Your task to perform on an android device: Go to Yahoo.com Image 0: 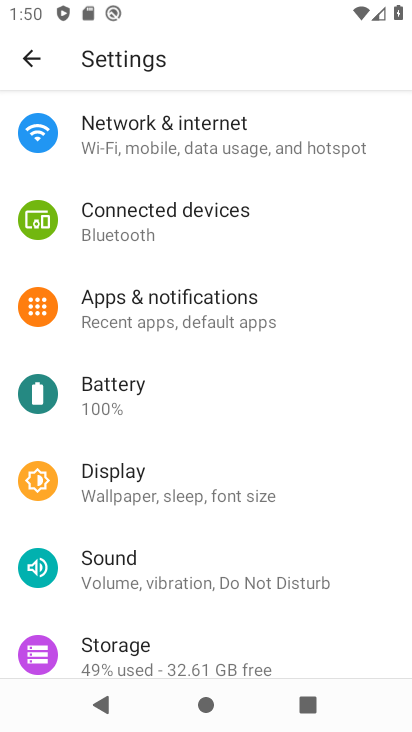
Step 0: press home button
Your task to perform on an android device: Go to Yahoo.com Image 1: 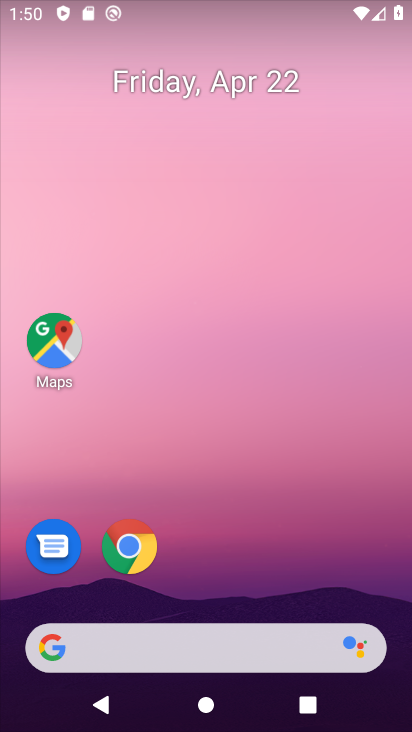
Step 1: click (137, 565)
Your task to perform on an android device: Go to Yahoo.com Image 2: 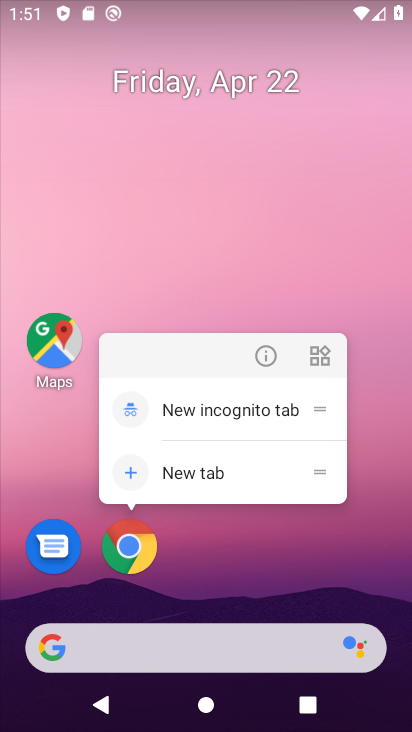
Step 2: click (144, 564)
Your task to perform on an android device: Go to Yahoo.com Image 3: 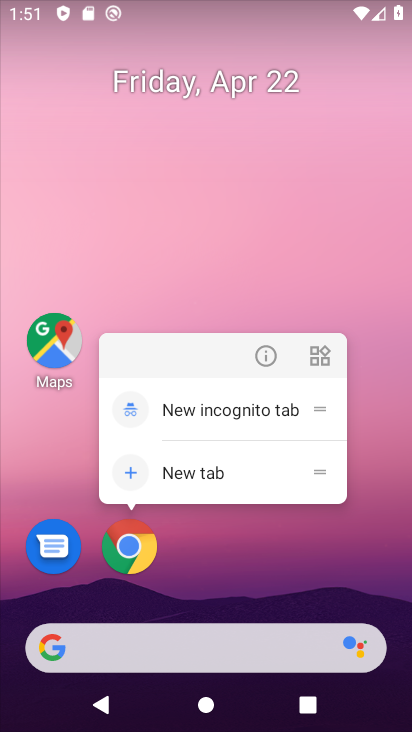
Step 3: click (144, 564)
Your task to perform on an android device: Go to Yahoo.com Image 4: 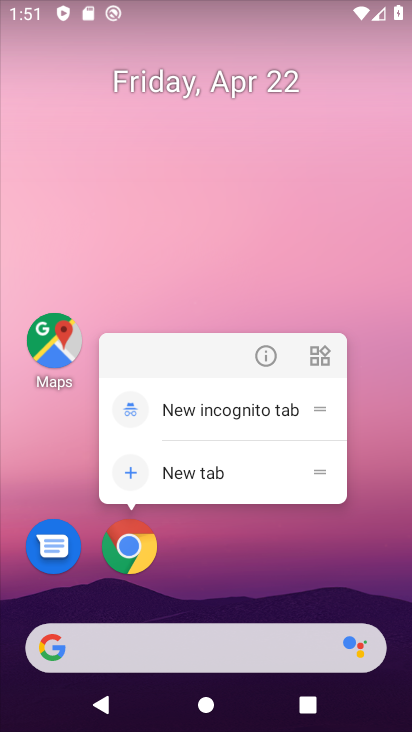
Step 4: click (131, 546)
Your task to perform on an android device: Go to Yahoo.com Image 5: 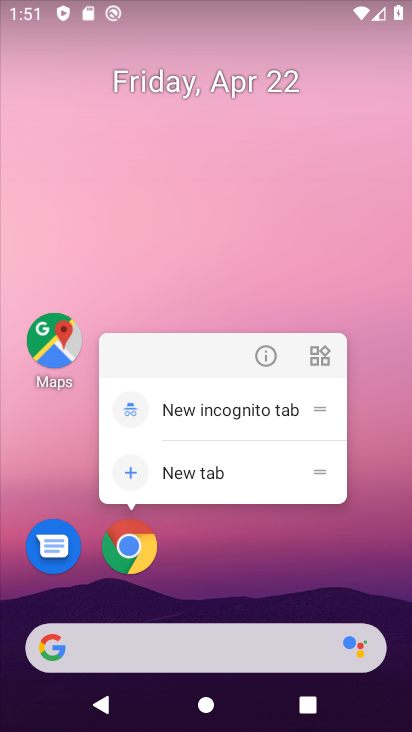
Step 5: click (125, 535)
Your task to perform on an android device: Go to Yahoo.com Image 6: 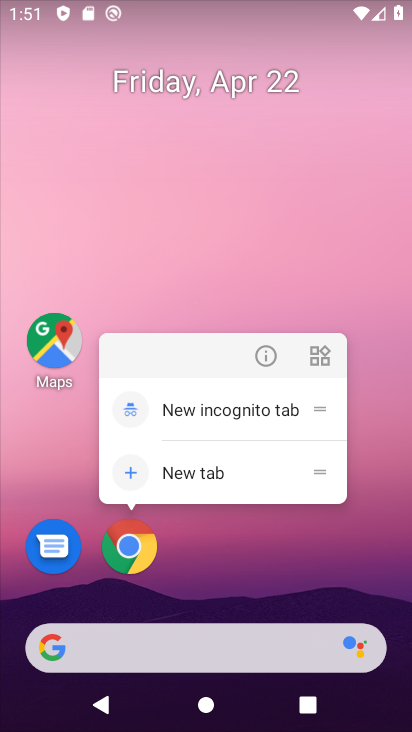
Step 6: click (149, 560)
Your task to perform on an android device: Go to Yahoo.com Image 7: 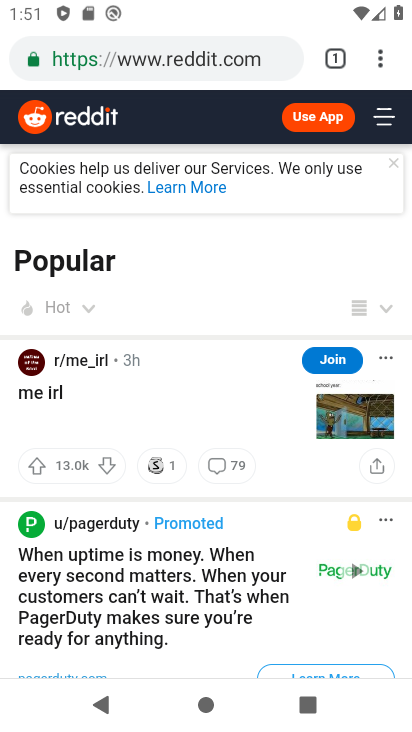
Step 7: click (238, 77)
Your task to perform on an android device: Go to Yahoo.com Image 8: 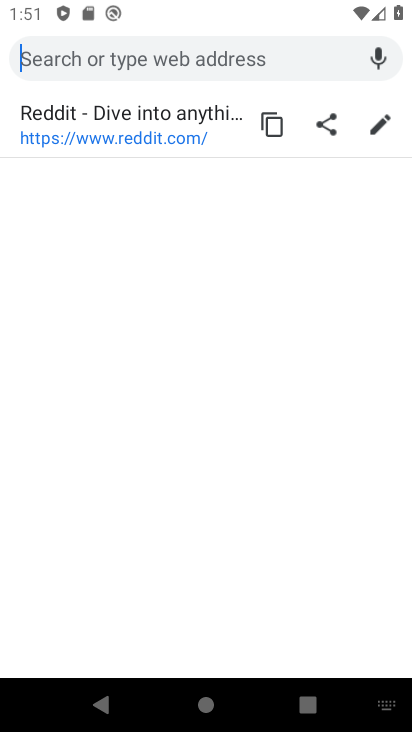
Step 8: type "yahoo.com"
Your task to perform on an android device: Go to Yahoo.com Image 9: 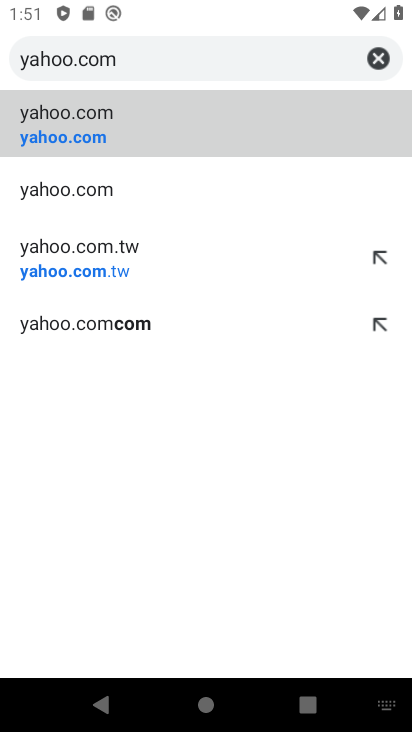
Step 9: click (210, 135)
Your task to perform on an android device: Go to Yahoo.com Image 10: 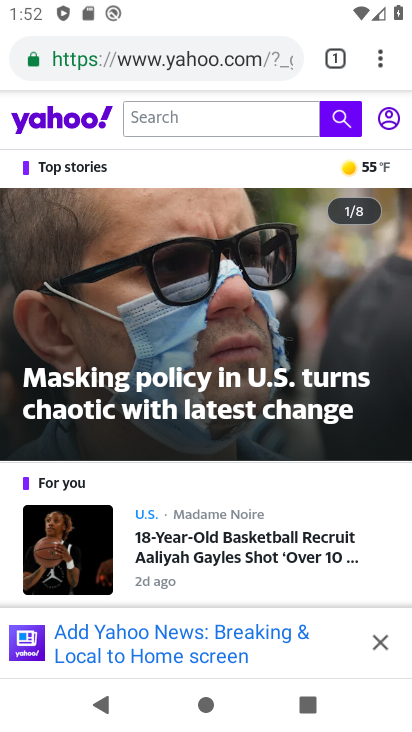
Step 10: task complete